Your task to perform on an android device: See recent photos Image 0: 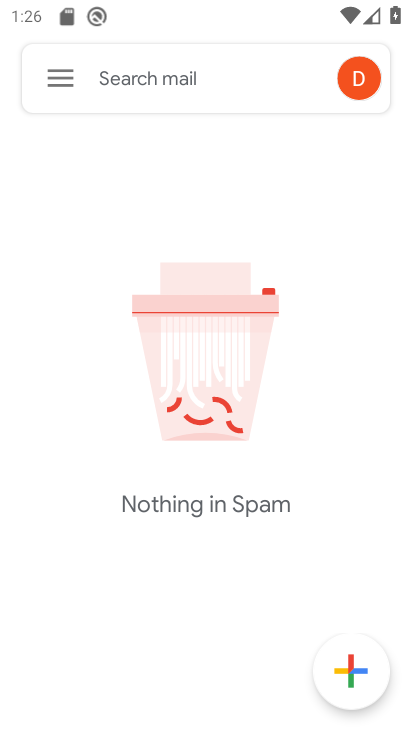
Step 0: press home button
Your task to perform on an android device: See recent photos Image 1: 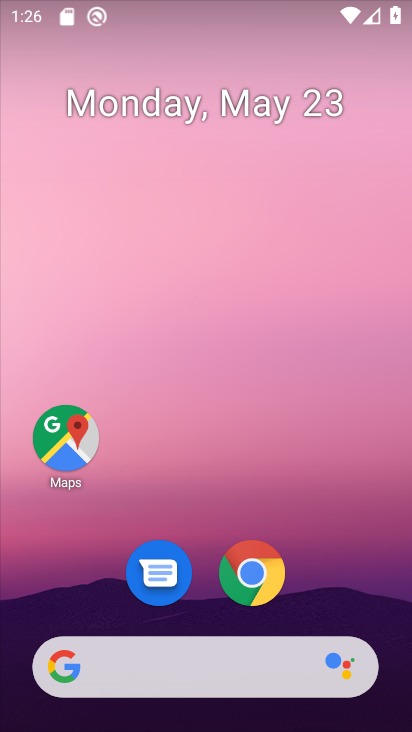
Step 1: drag from (324, 593) to (246, 87)
Your task to perform on an android device: See recent photos Image 2: 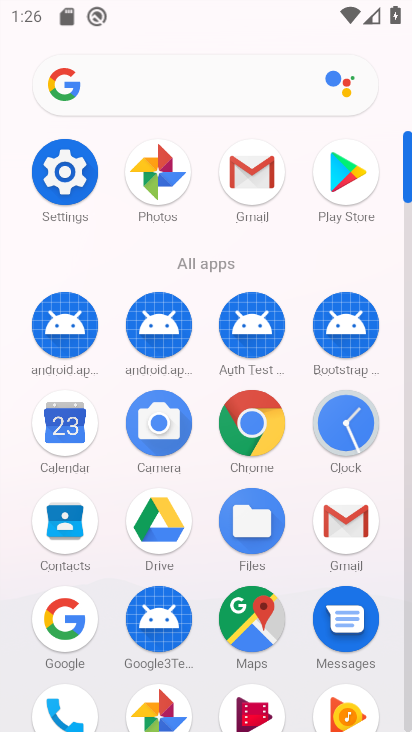
Step 2: click (153, 166)
Your task to perform on an android device: See recent photos Image 3: 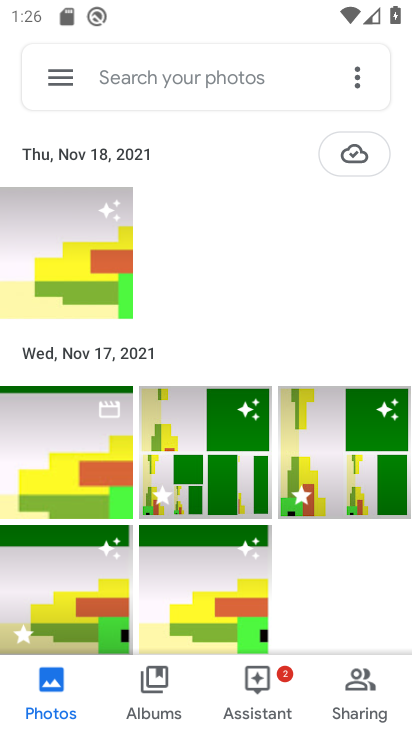
Step 3: click (63, 74)
Your task to perform on an android device: See recent photos Image 4: 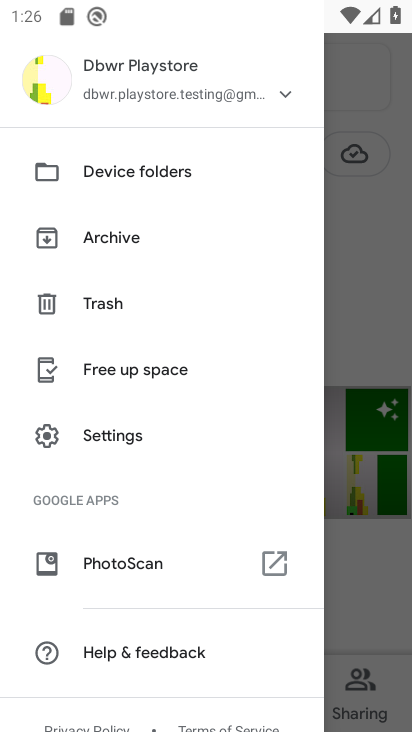
Step 4: click (377, 225)
Your task to perform on an android device: See recent photos Image 5: 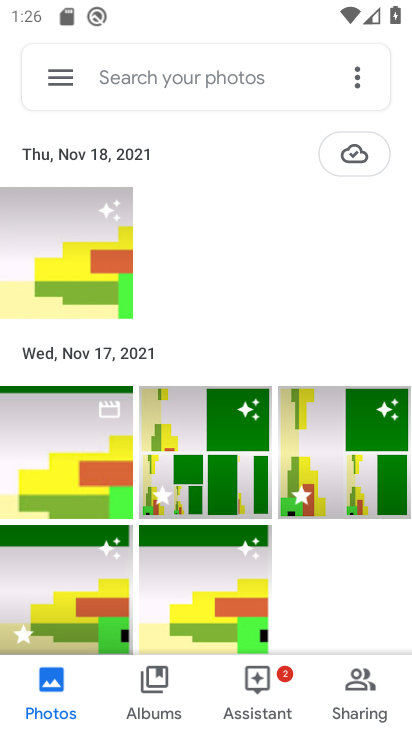
Step 5: click (244, 91)
Your task to perform on an android device: See recent photos Image 6: 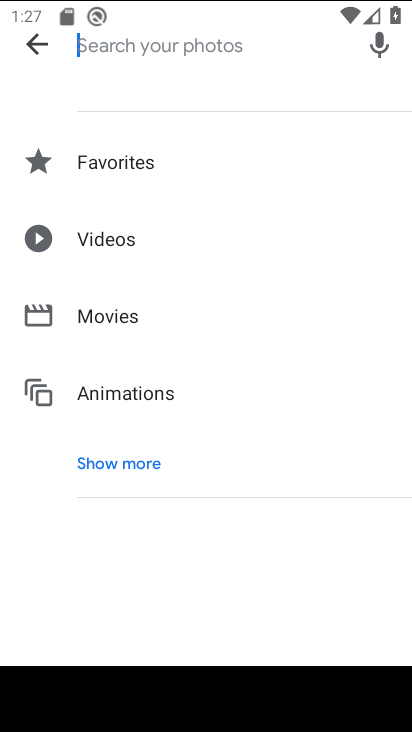
Step 6: click (128, 462)
Your task to perform on an android device: See recent photos Image 7: 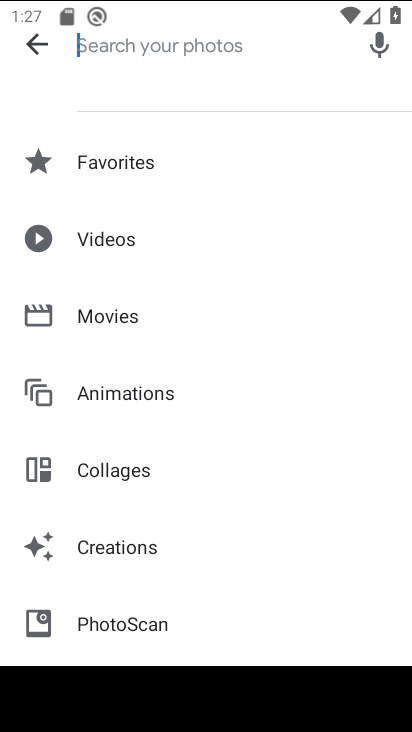
Step 7: drag from (192, 586) to (233, 158)
Your task to perform on an android device: See recent photos Image 8: 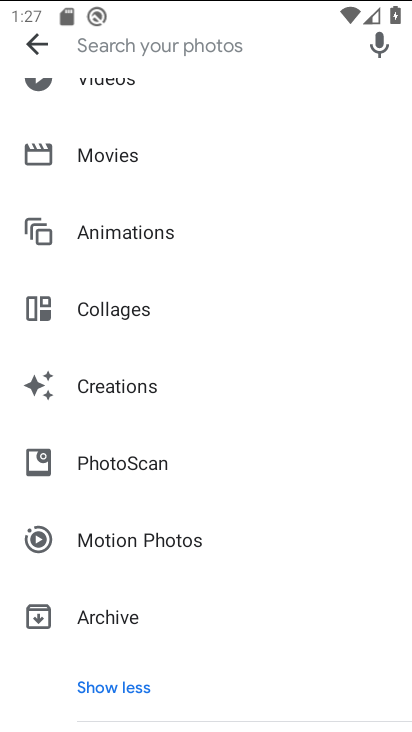
Step 8: drag from (203, 148) to (223, 493)
Your task to perform on an android device: See recent photos Image 9: 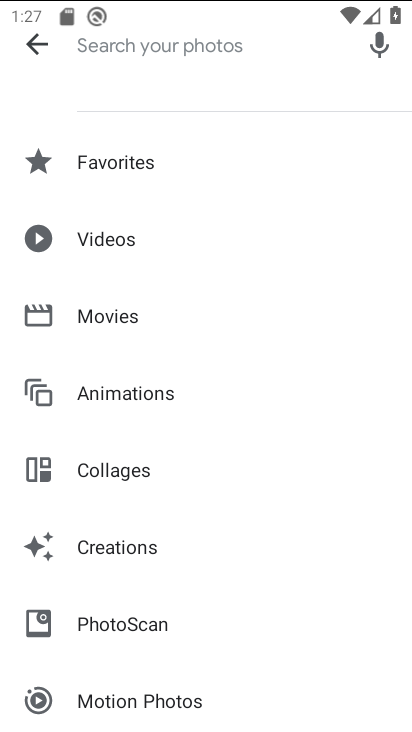
Step 9: click (33, 42)
Your task to perform on an android device: See recent photos Image 10: 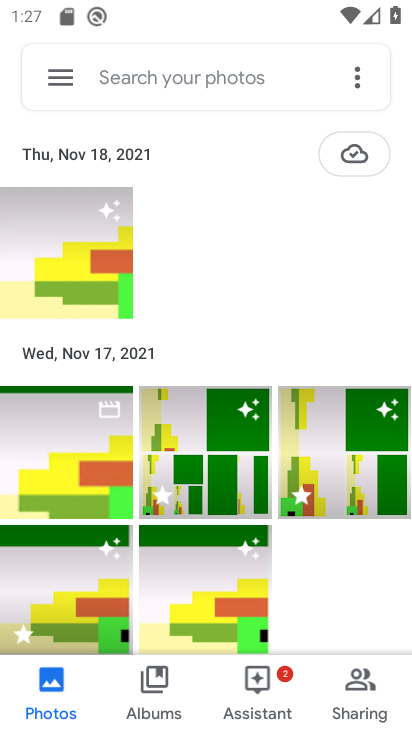
Step 10: click (64, 78)
Your task to perform on an android device: See recent photos Image 11: 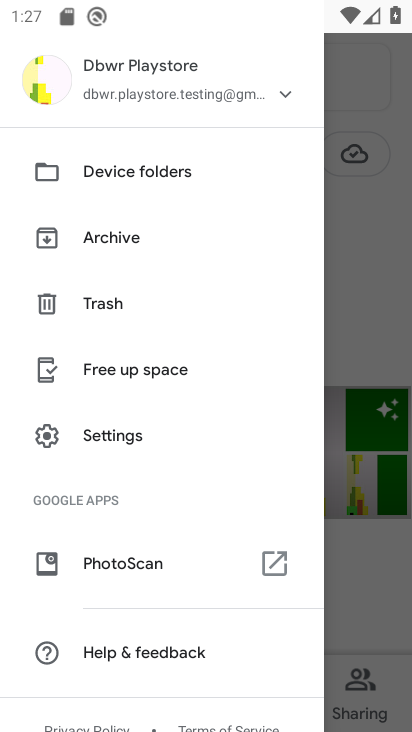
Step 11: click (352, 329)
Your task to perform on an android device: See recent photos Image 12: 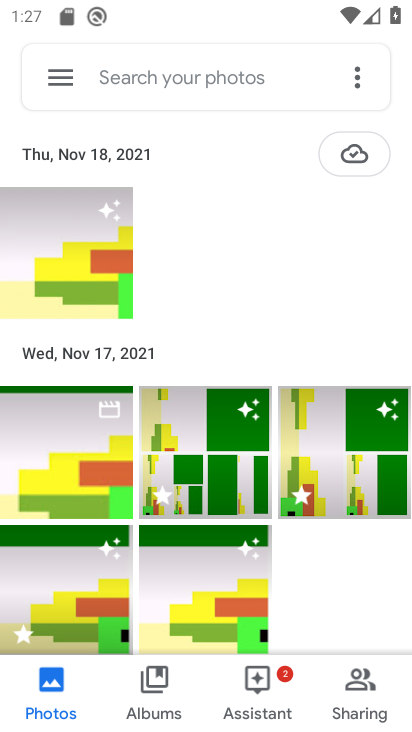
Step 12: click (199, 90)
Your task to perform on an android device: See recent photos Image 13: 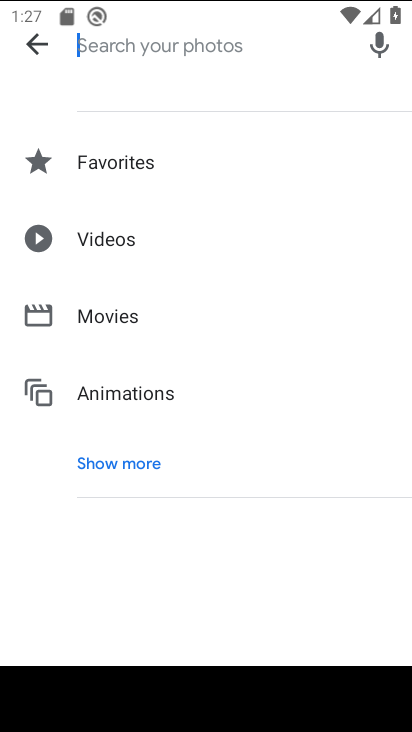
Step 13: type "recent photos"
Your task to perform on an android device: See recent photos Image 14: 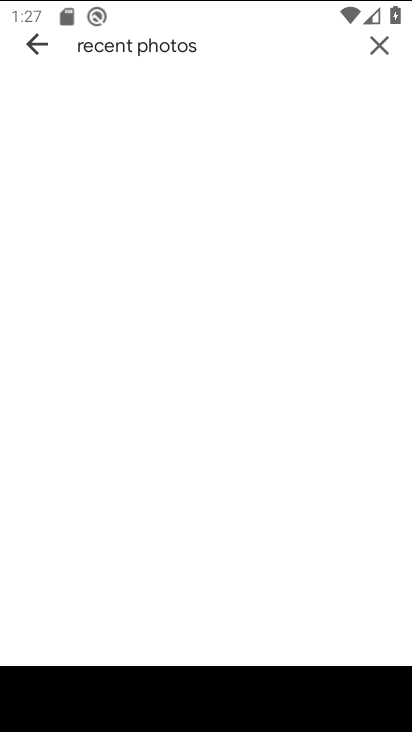
Step 14: task complete